Your task to perform on an android device: check battery use Image 0: 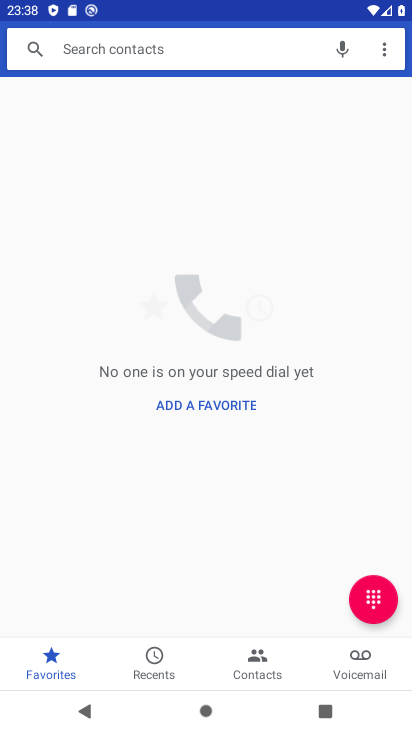
Step 0: press home button
Your task to perform on an android device: check battery use Image 1: 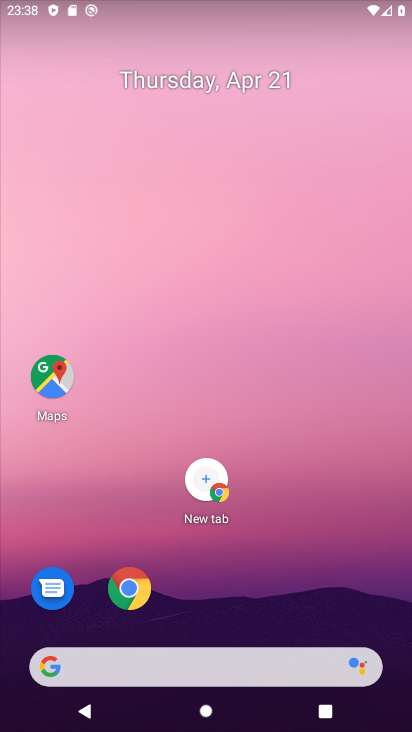
Step 1: drag from (196, 545) to (240, 96)
Your task to perform on an android device: check battery use Image 2: 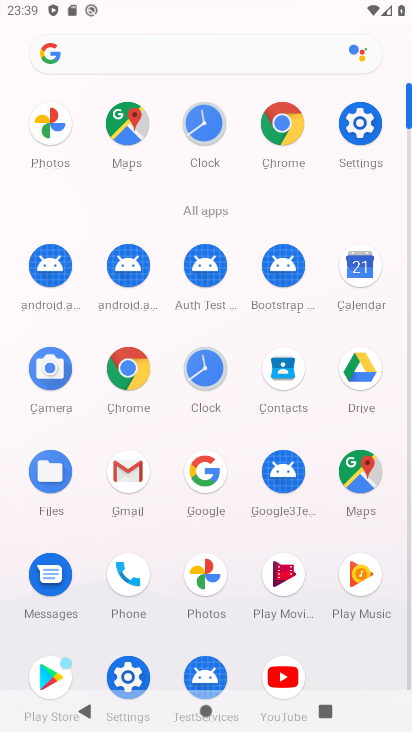
Step 2: click (363, 131)
Your task to perform on an android device: check battery use Image 3: 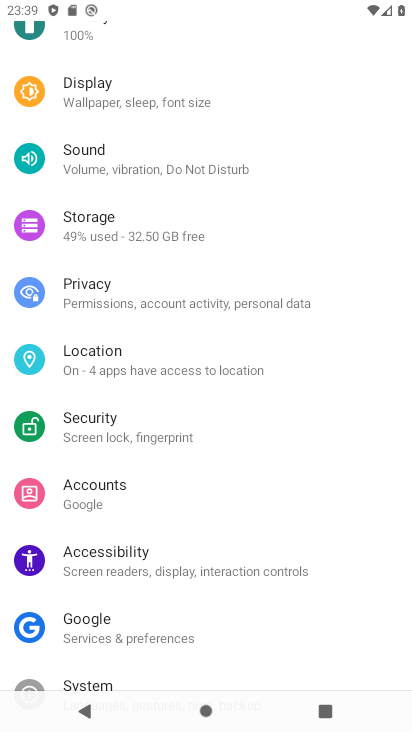
Step 3: click (91, 35)
Your task to perform on an android device: check battery use Image 4: 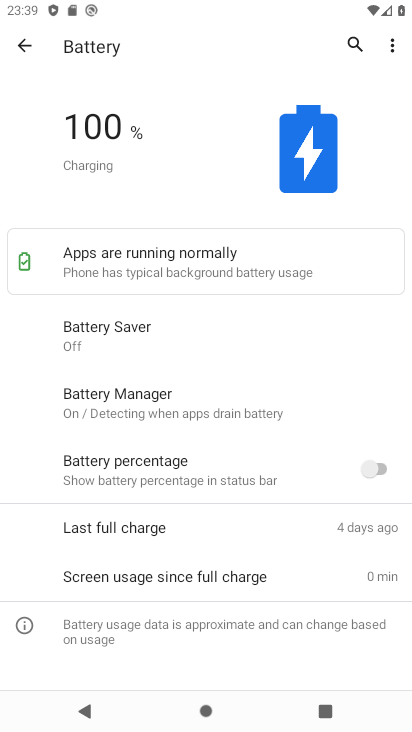
Step 4: task complete